Your task to perform on an android device: check android version Image 0: 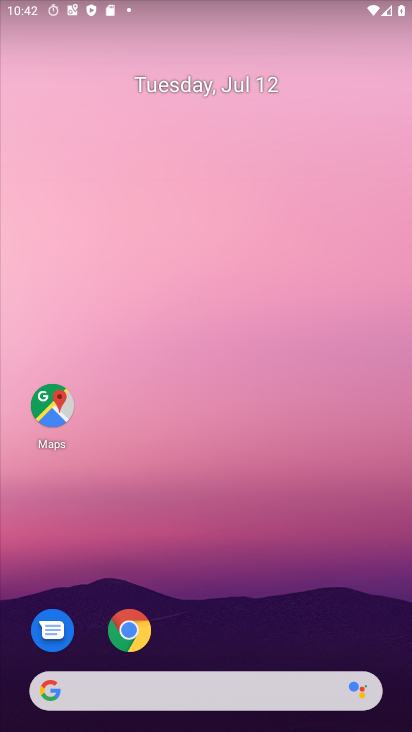
Step 0: drag from (197, 632) to (139, 135)
Your task to perform on an android device: check android version Image 1: 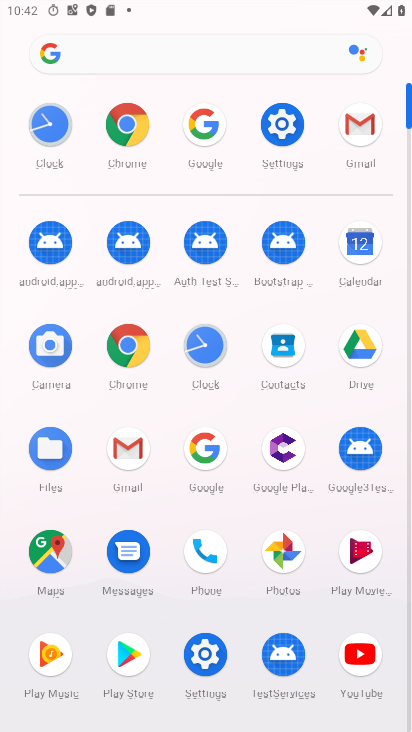
Step 1: click (286, 127)
Your task to perform on an android device: check android version Image 2: 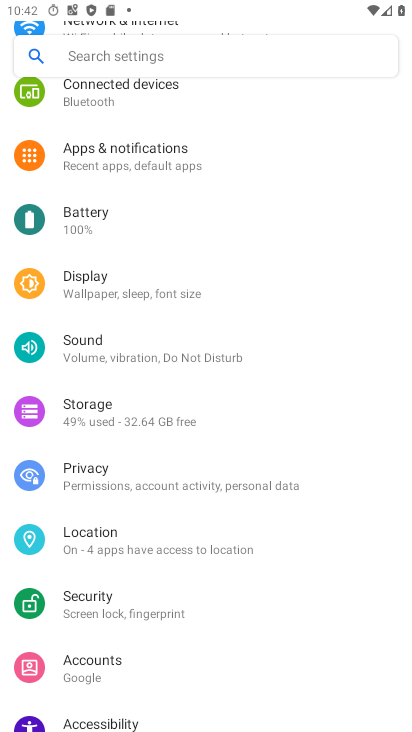
Step 2: drag from (235, 678) to (237, 192)
Your task to perform on an android device: check android version Image 3: 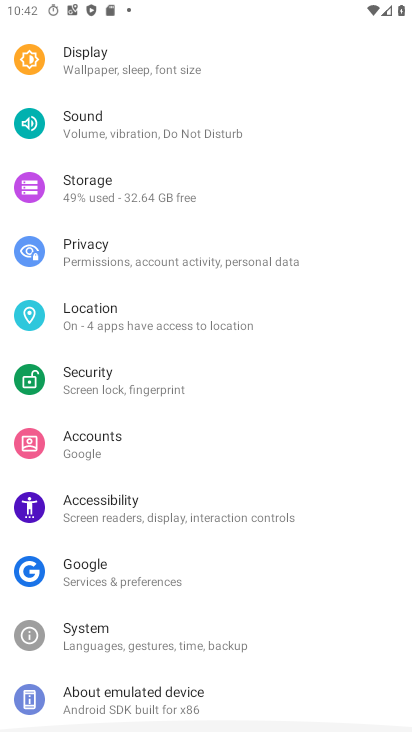
Step 3: click (158, 688)
Your task to perform on an android device: check android version Image 4: 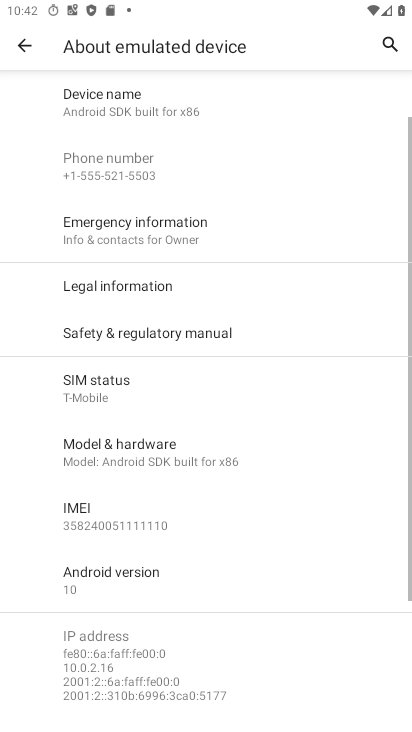
Step 4: click (131, 592)
Your task to perform on an android device: check android version Image 5: 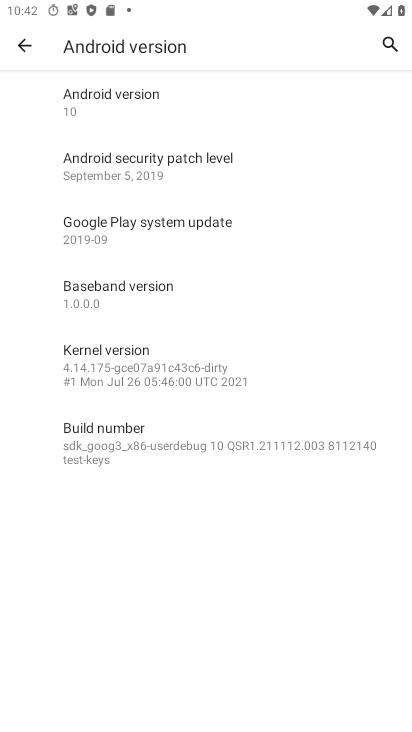
Step 5: task complete